Your task to perform on an android device: turn off improve location accuracy Image 0: 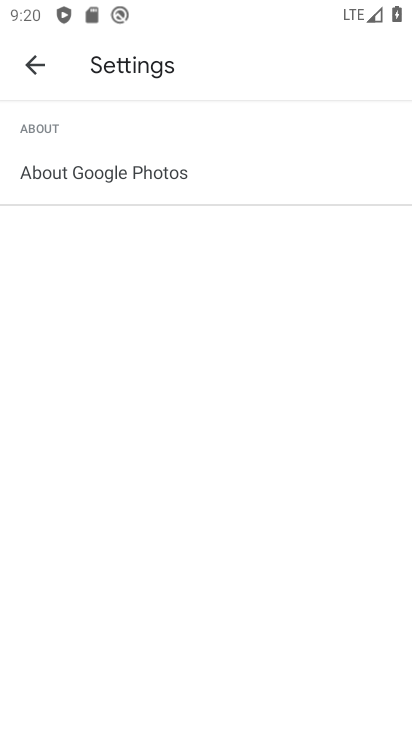
Step 0: press home button
Your task to perform on an android device: turn off improve location accuracy Image 1: 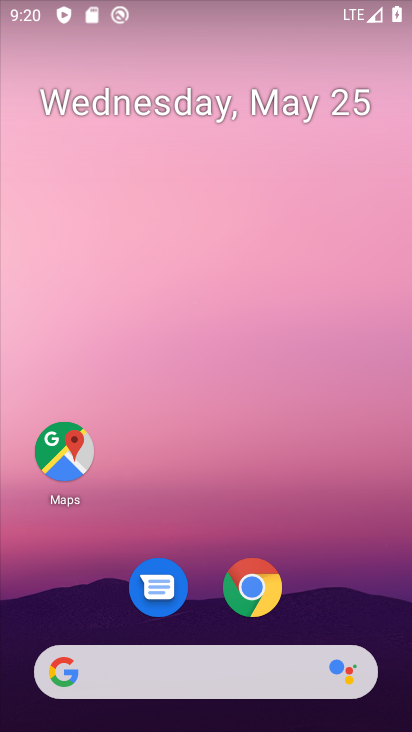
Step 1: drag from (211, 580) to (276, 11)
Your task to perform on an android device: turn off improve location accuracy Image 2: 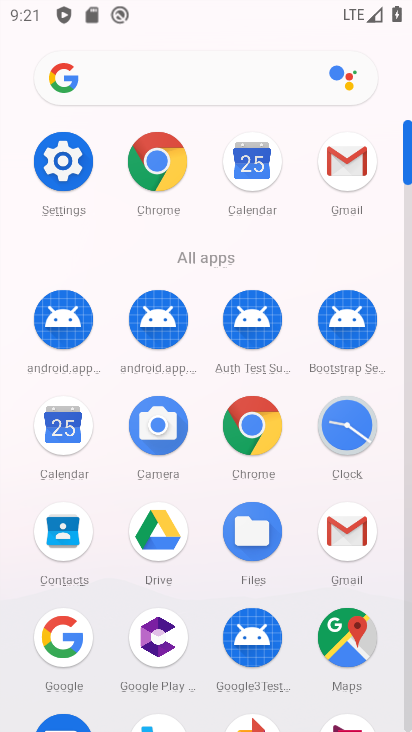
Step 2: drag from (226, 565) to (226, 138)
Your task to perform on an android device: turn off improve location accuracy Image 3: 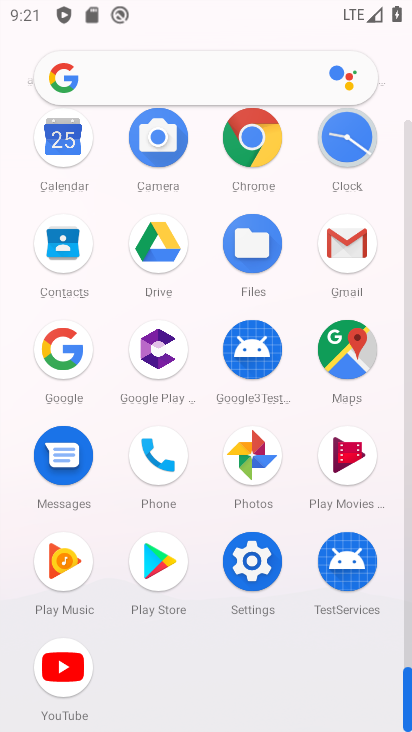
Step 3: click (253, 599)
Your task to perform on an android device: turn off improve location accuracy Image 4: 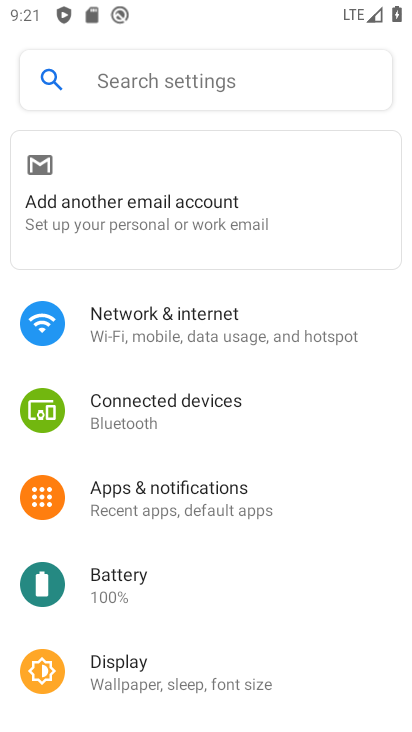
Step 4: drag from (221, 646) to (233, 231)
Your task to perform on an android device: turn off improve location accuracy Image 5: 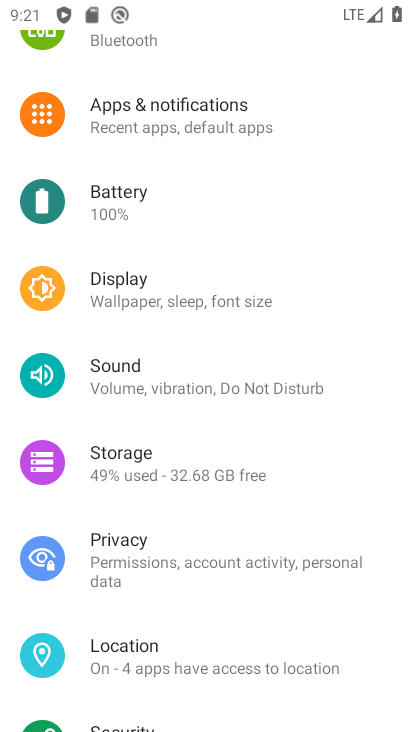
Step 5: drag from (164, 569) to (166, 269)
Your task to perform on an android device: turn off improve location accuracy Image 6: 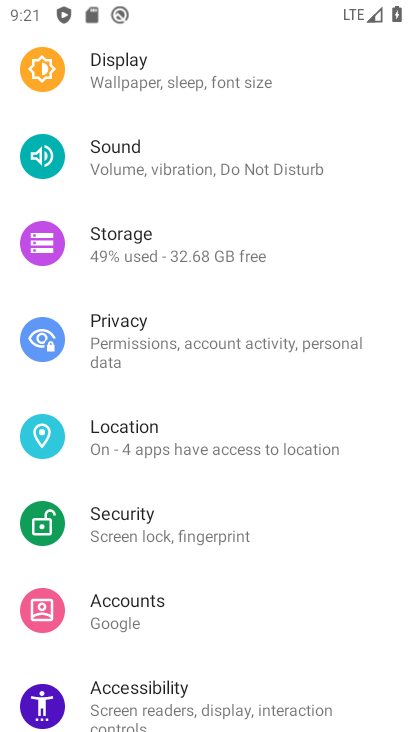
Step 6: click (168, 599)
Your task to perform on an android device: turn off improve location accuracy Image 7: 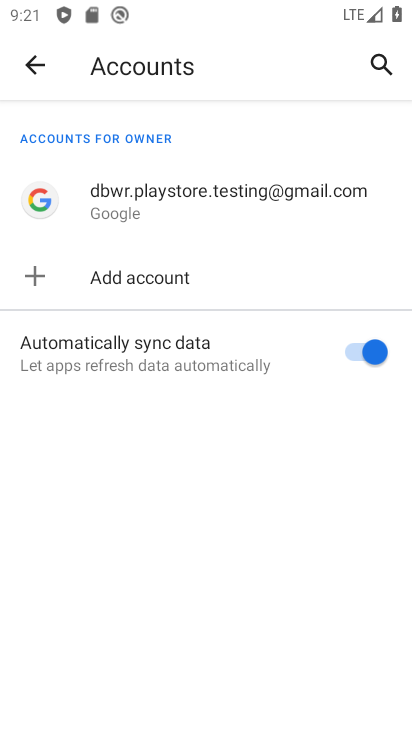
Step 7: click (33, 63)
Your task to perform on an android device: turn off improve location accuracy Image 8: 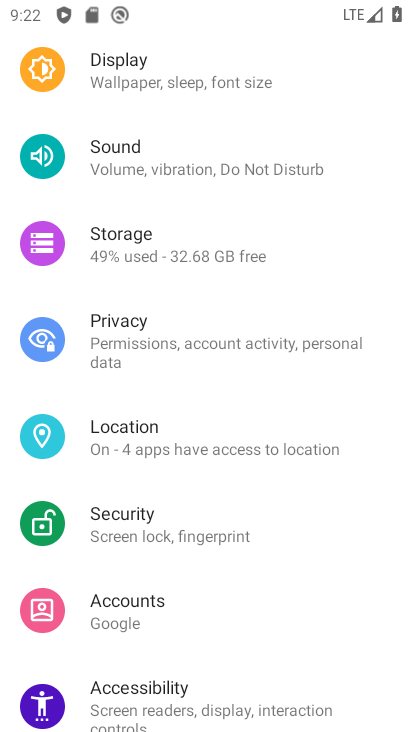
Step 8: click (145, 450)
Your task to perform on an android device: turn off improve location accuracy Image 9: 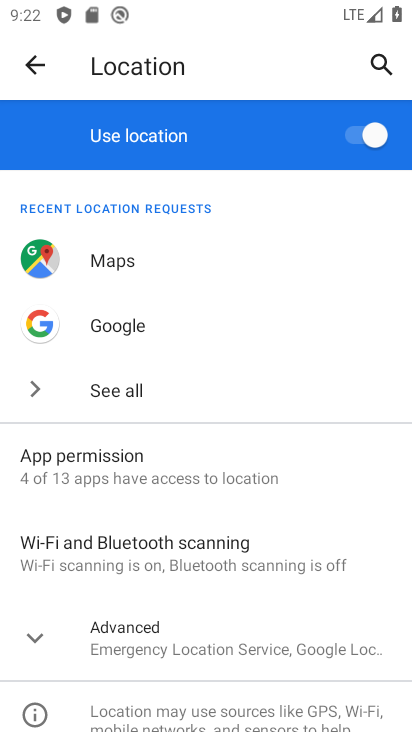
Step 9: click (119, 647)
Your task to perform on an android device: turn off improve location accuracy Image 10: 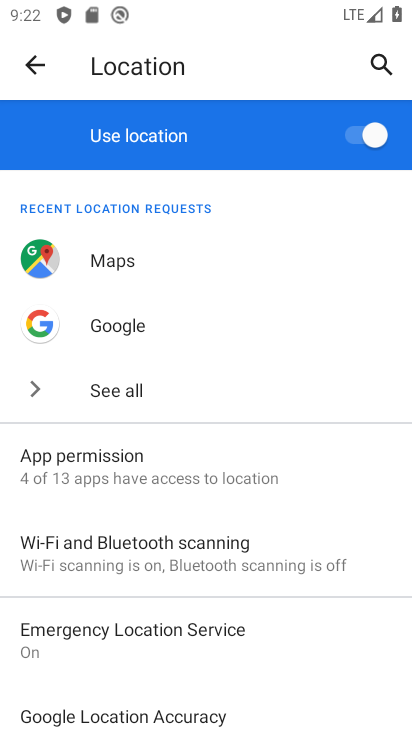
Step 10: drag from (119, 647) to (110, 403)
Your task to perform on an android device: turn off improve location accuracy Image 11: 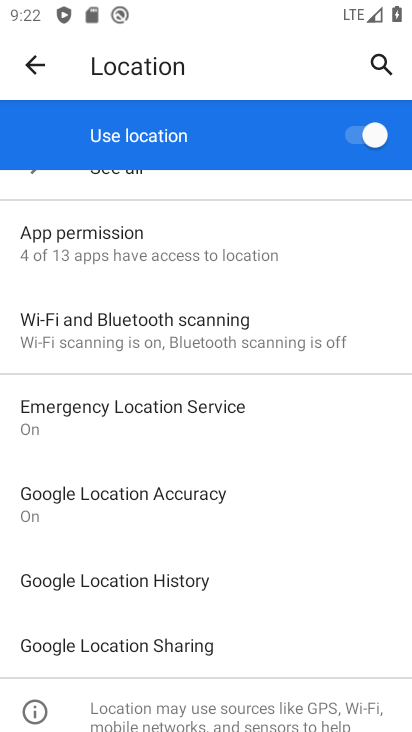
Step 11: click (143, 499)
Your task to perform on an android device: turn off improve location accuracy Image 12: 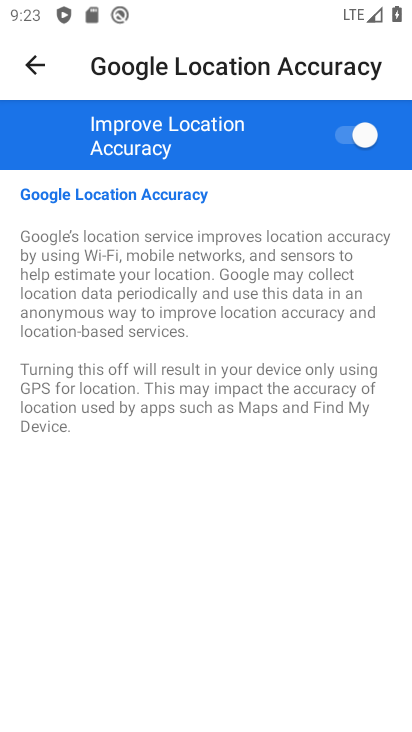
Step 12: click (315, 134)
Your task to perform on an android device: turn off improve location accuracy Image 13: 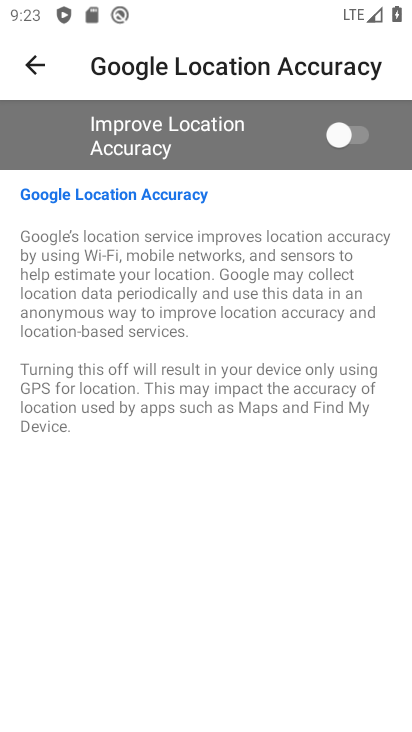
Step 13: task complete